Your task to perform on an android device: see sites visited before in the chrome app Image 0: 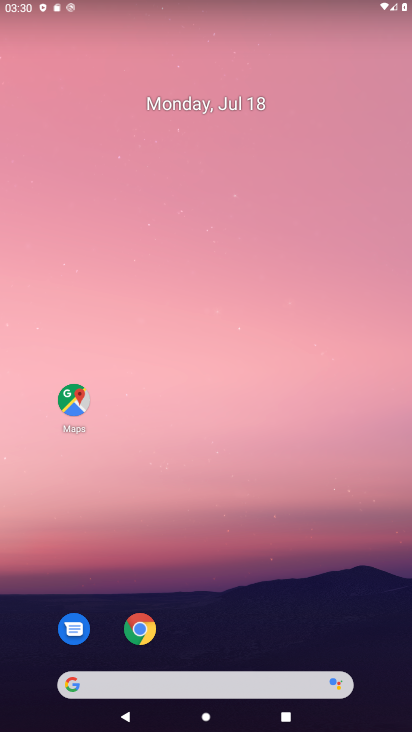
Step 0: click (135, 632)
Your task to perform on an android device: see sites visited before in the chrome app Image 1: 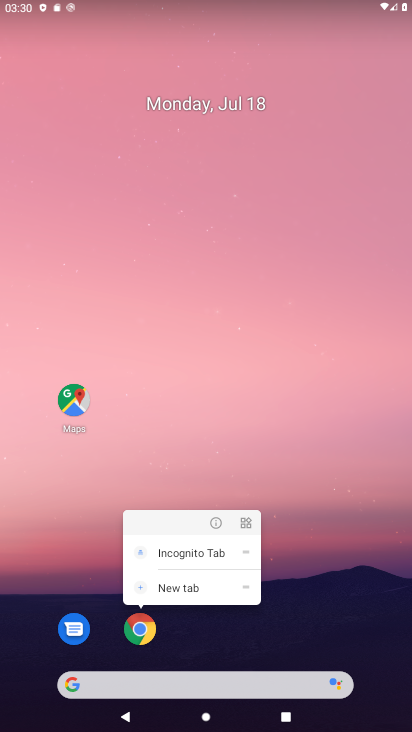
Step 1: click (131, 630)
Your task to perform on an android device: see sites visited before in the chrome app Image 2: 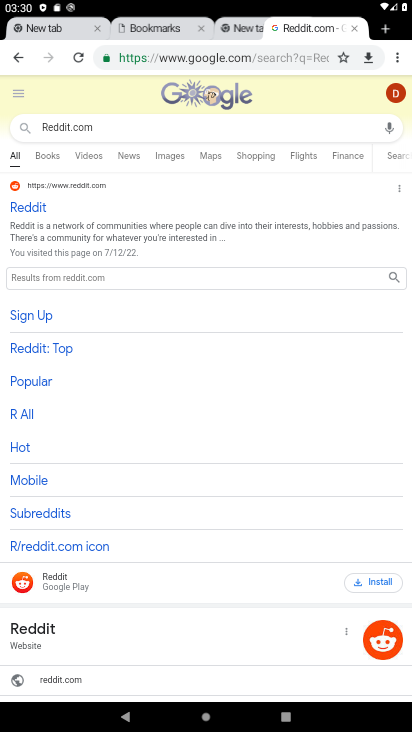
Step 2: click (397, 60)
Your task to perform on an android device: see sites visited before in the chrome app Image 3: 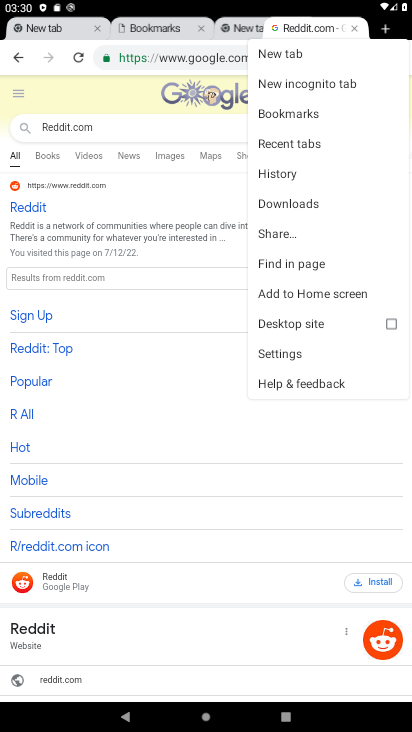
Step 3: click (281, 350)
Your task to perform on an android device: see sites visited before in the chrome app Image 4: 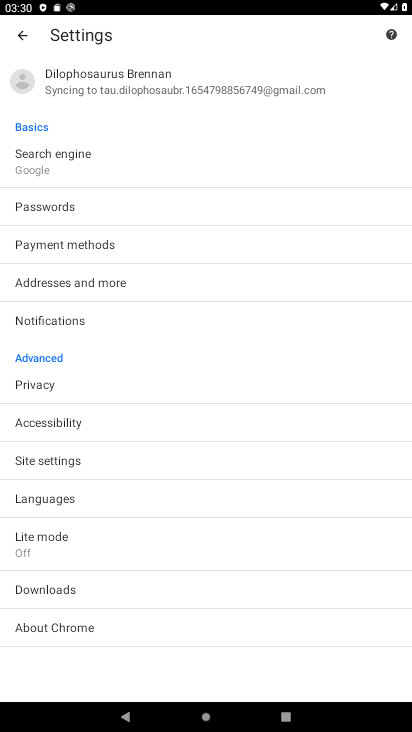
Step 4: click (56, 458)
Your task to perform on an android device: see sites visited before in the chrome app Image 5: 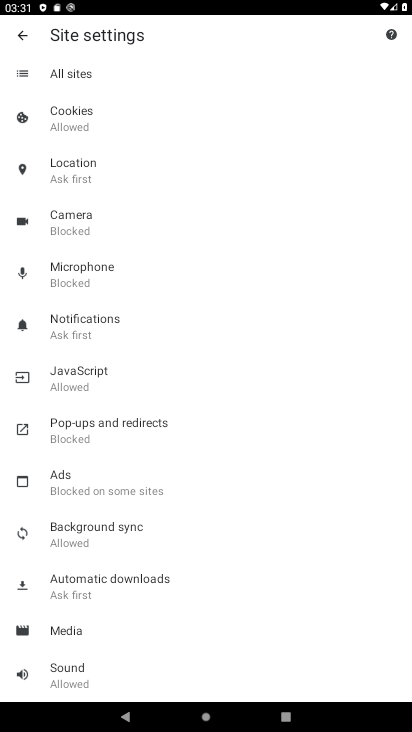
Step 5: click (20, 37)
Your task to perform on an android device: see sites visited before in the chrome app Image 6: 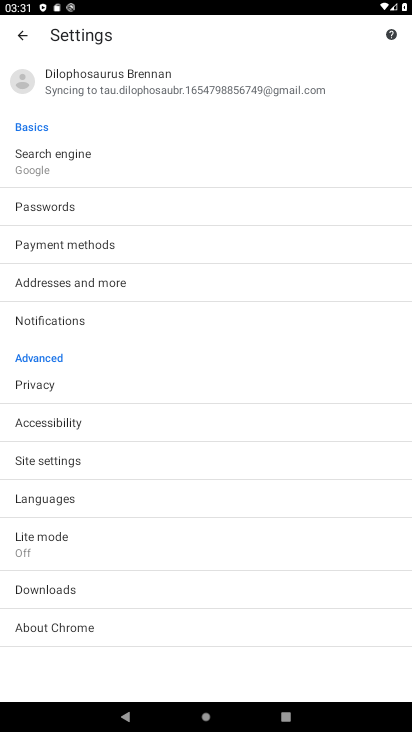
Step 6: click (19, 39)
Your task to perform on an android device: see sites visited before in the chrome app Image 7: 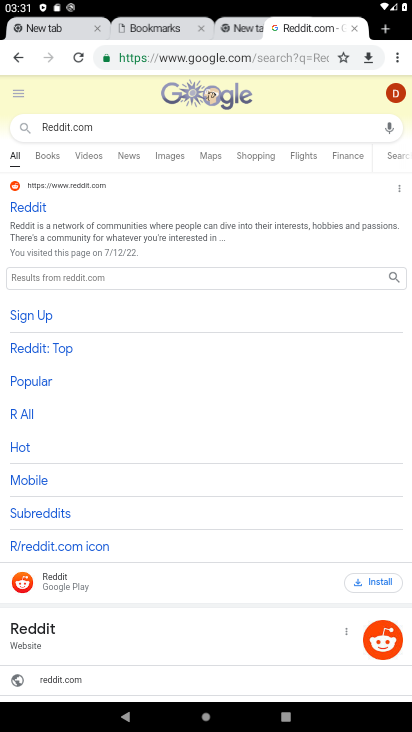
Step 7: click (395, 55)
Your task to perform on an android device: see sites visited before in the chrome app Image 8: 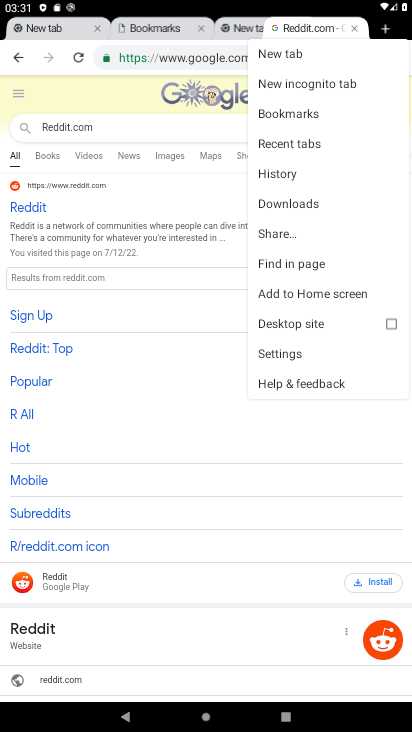
Step 8: click (298, 140)
Your task to perform on an android device: see sites visited before in the chrome app Image 9: 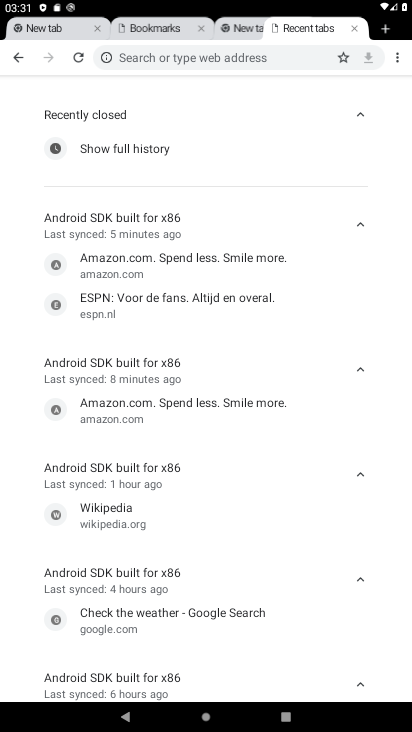
Step 9: task complete